Your task to perform on an android device: Search for pizza restaurants on Maps Image 0: 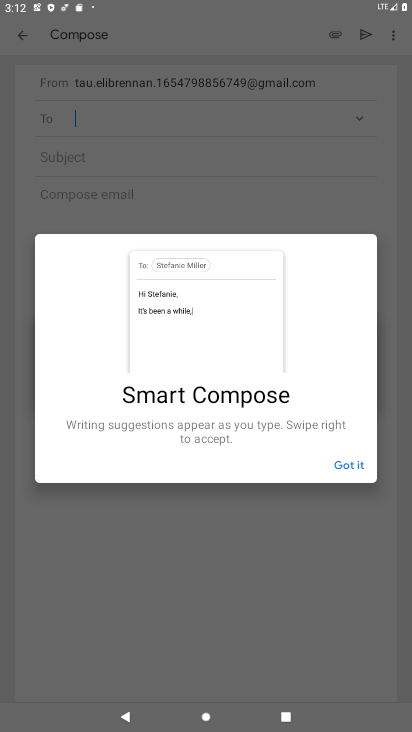
Step 0: press home button
Your task to perform on an android device: Search for pizza restaurants on Maps Image 1: 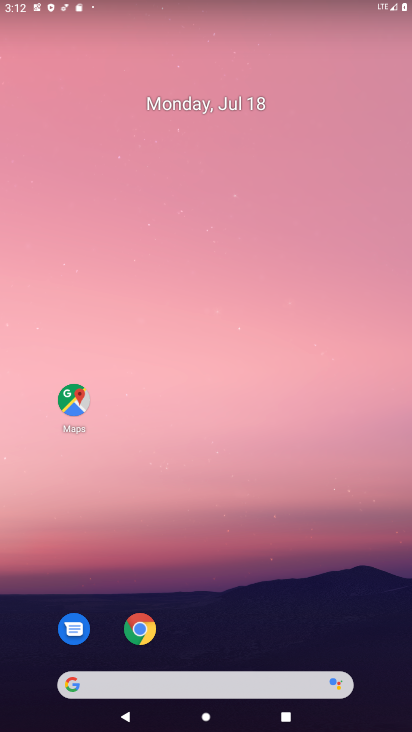
Step 1: drag from (221, 614) to (265, 3)
Your task to perform on an android device: Search for pizza restaurants on Maps Image 2: 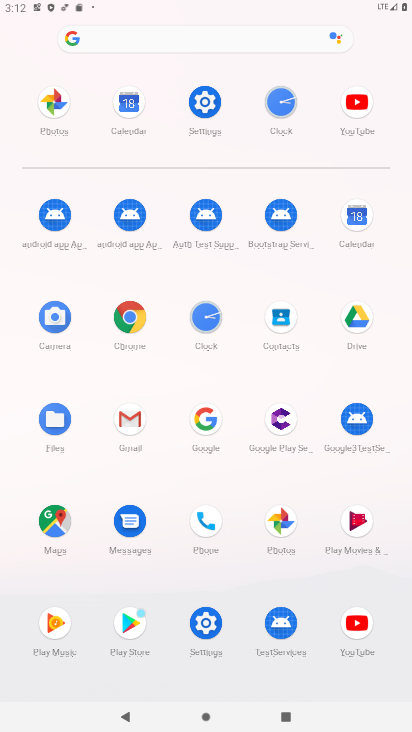
Step 2: click (51, 536)
Your task to perform on an android device: Search for pizza restaurants on Maps Image 3: 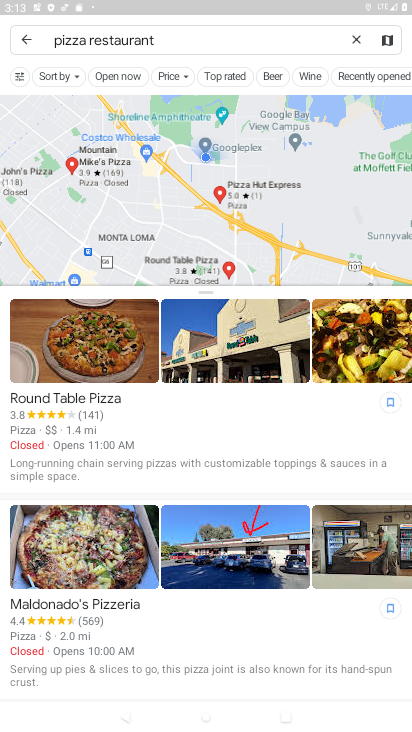
Step 3: task complete